Your task to perform on an android device: turn off javascript in the chrome app Image 0: 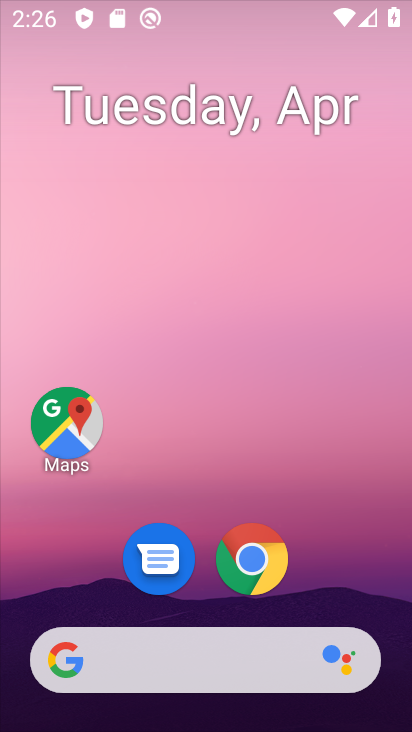
Step 0: drag from (179, 616) to (301, 48)
Your task to perform on an android device: turn off javascript in the chrome app Image 1: 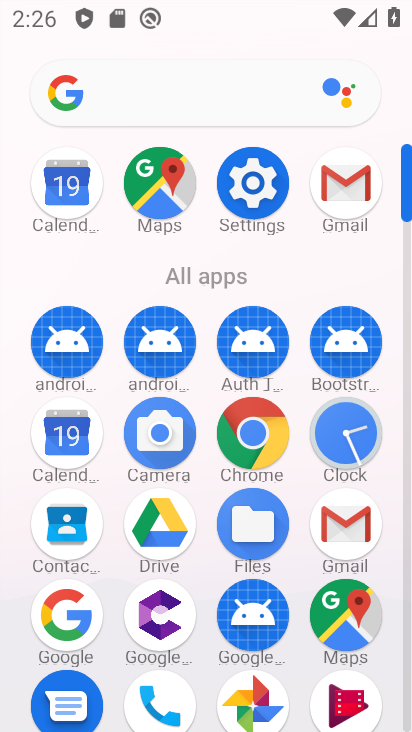
Step 1: click (250, 426)
Your task to perform on an android device: turn off javascript in the chrome app Image 2: 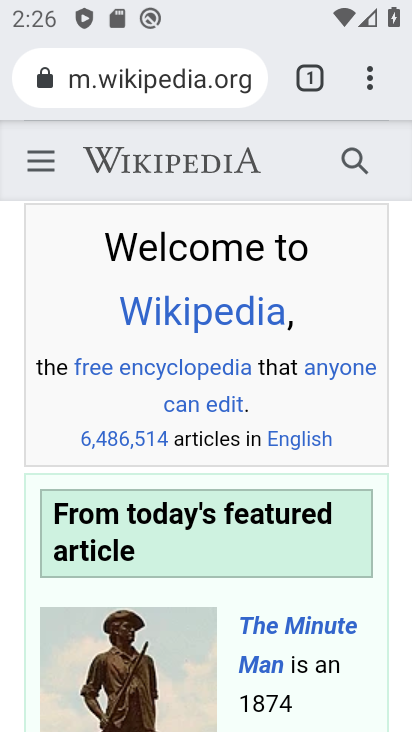
Step 2: click (370, 93)
Your task to perform on an android device: turn off javascript in the chrome app Image 3: 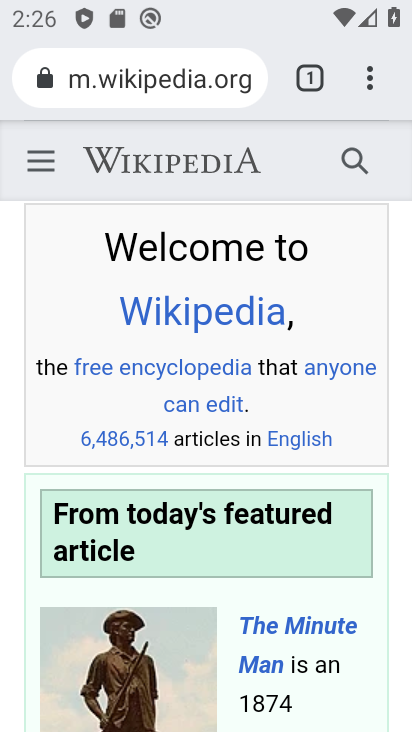
Step 3: click (382, 80)
Your task to perform on an android device: turn off javascript in the chrome app Image 4: 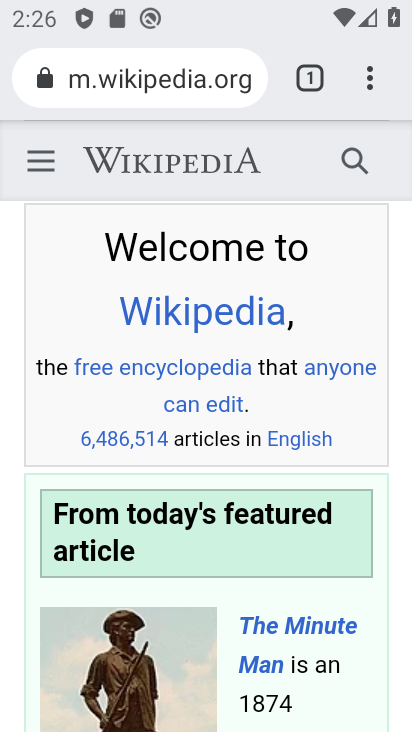
Step 4: click (376, 73)
Your task to perform on an android device: turn off javascript in the chrome app Image 5: 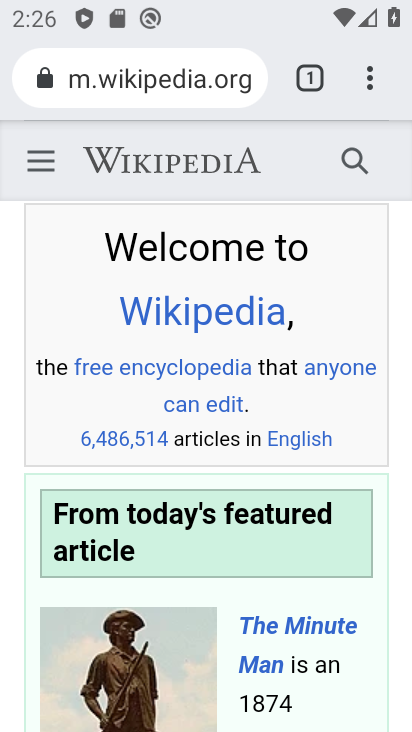
Step 5: drag from (376, 73) to (173, 611)
Your task to perform on an android device: turn off javascript in the chrome app Image 6: 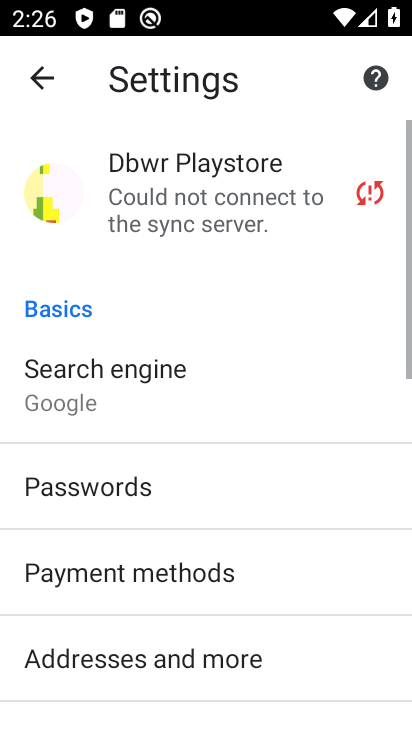
Step 6: drag from (77, 610) to (241, 256)
Your task to perform on an android device: turn off javascript in the chrome app Image 7: 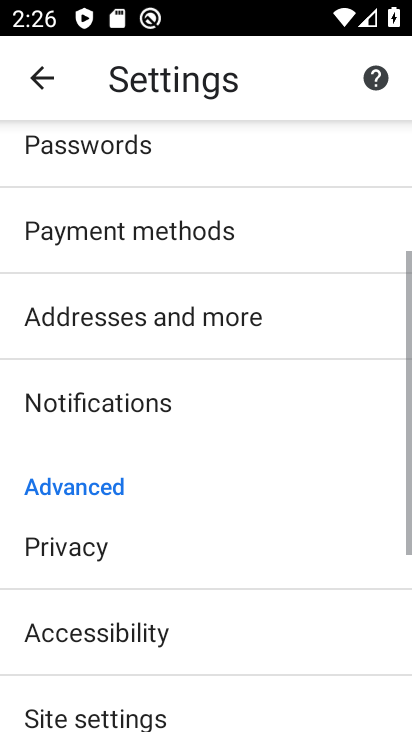
Step 7: drag from (167, 592) to (269, 265)
Your task to perform on an android device: turn off javascript in the chrome app Image 8: 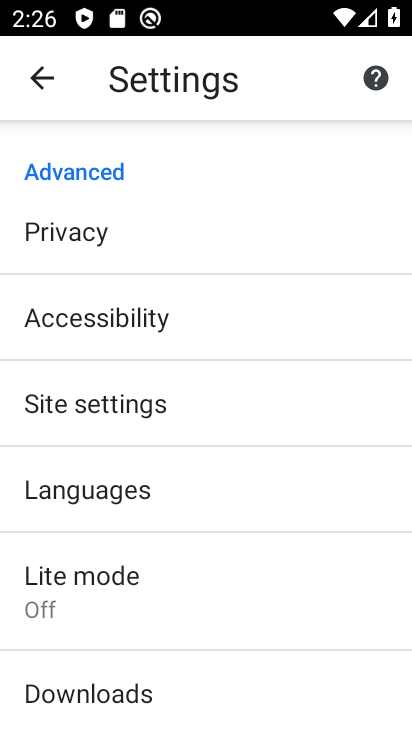
Step 8: click (140, 412)
Your task to perform on an android device: turn off javascript in the chrome app Image 9: 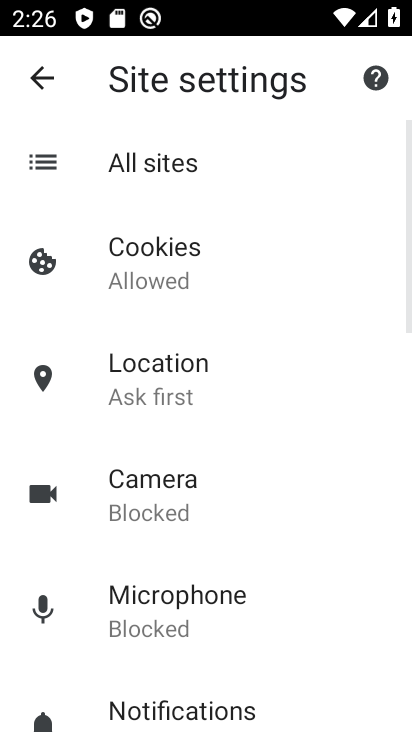
Step 9: drag from (174, 678) to (297, 235)
Your task to perform on an android device: turn off javascript in the chrome app Image 10: 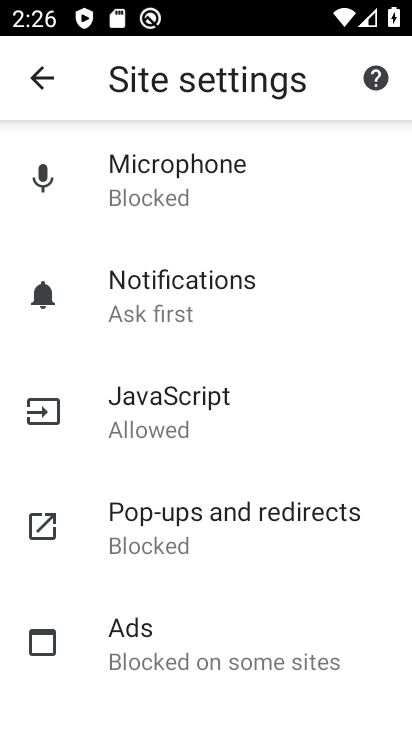
Step 10: click (181, 425)
Your task to perform on an android device: turn off javascript in the chrome app Image 11: 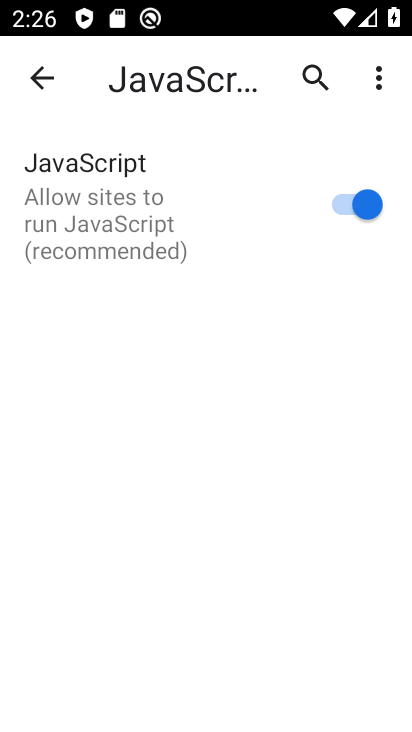
Step 11: click (341, 191)
Your task to perform on an android device: turn off javascript in the chrome app Image 12: 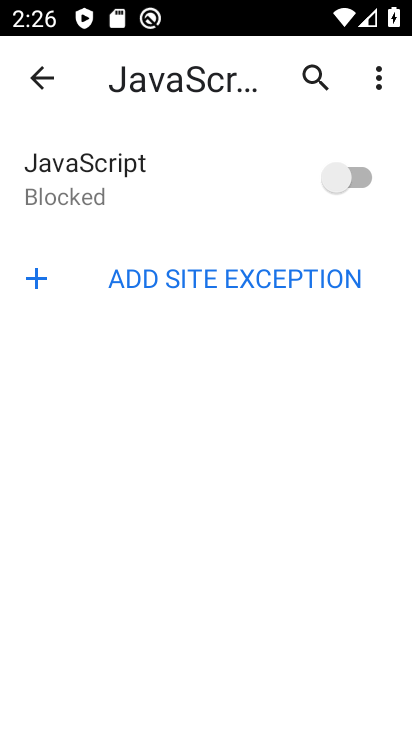
Step 12: task complete